Your task to perform on an android device: Install the ESPN app Image 0: 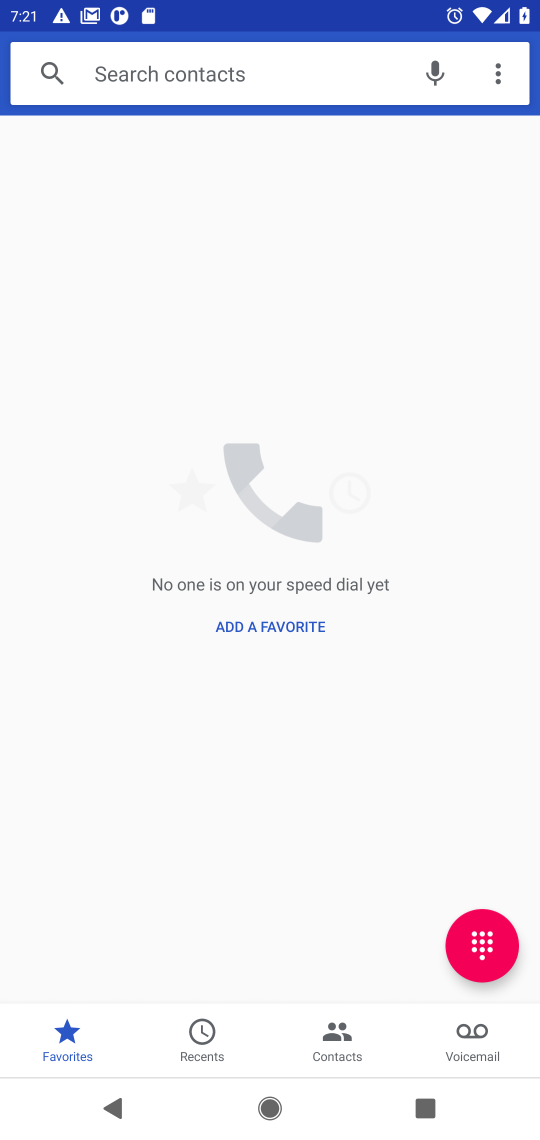
Step 0: press home button
Your task to perform on an android device: Install the ESPN app Image 1: 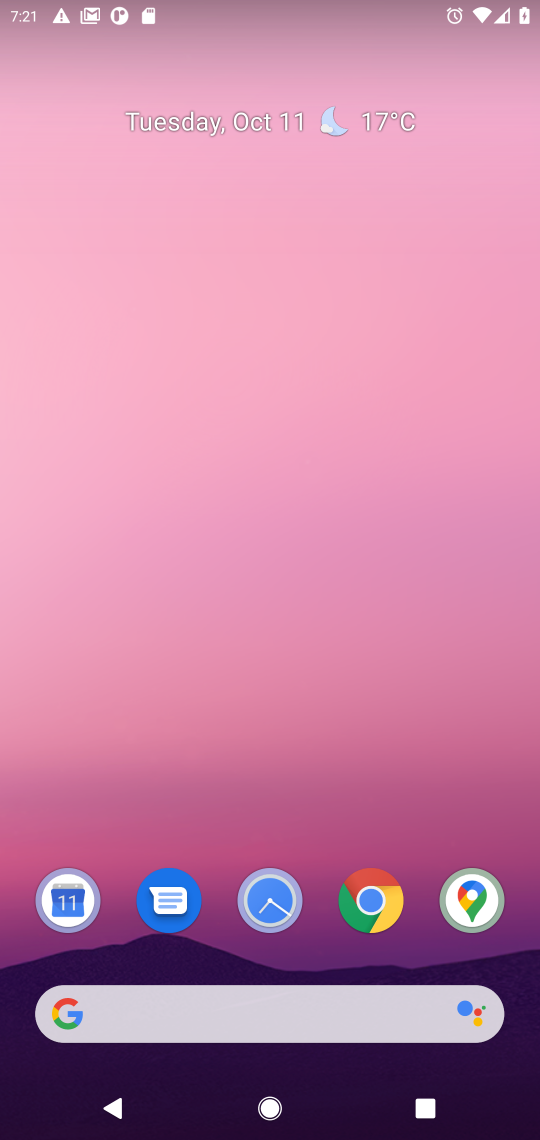
Step 1: drag from (263, 987) to (377, 186)
Your task to perform on an android device: Install the ESPN app Image 2: 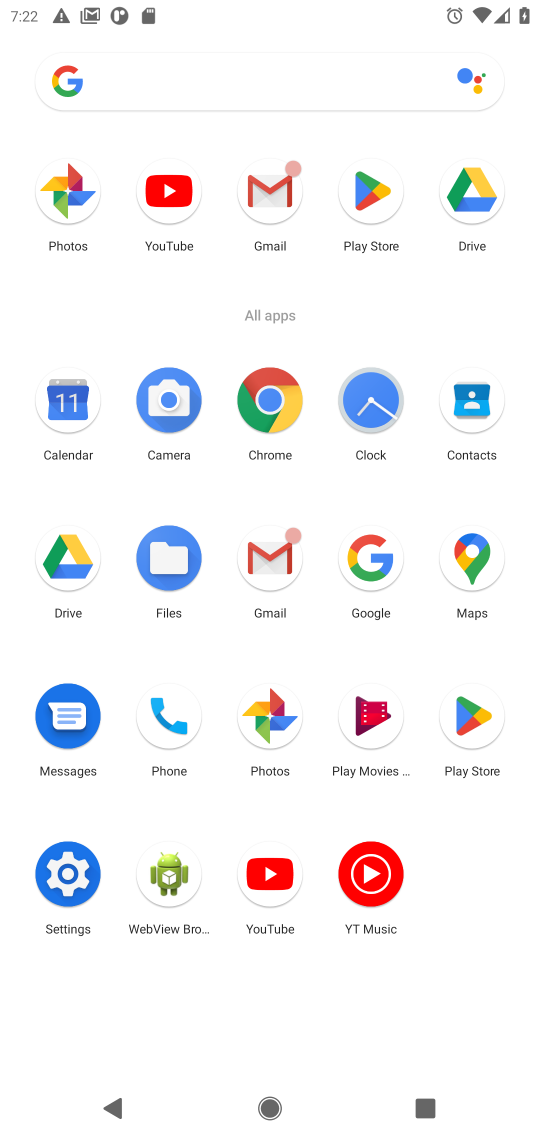
Step 2: click (464, 713)
Your task to perform on an android device: Install the ESPN app Image 3: 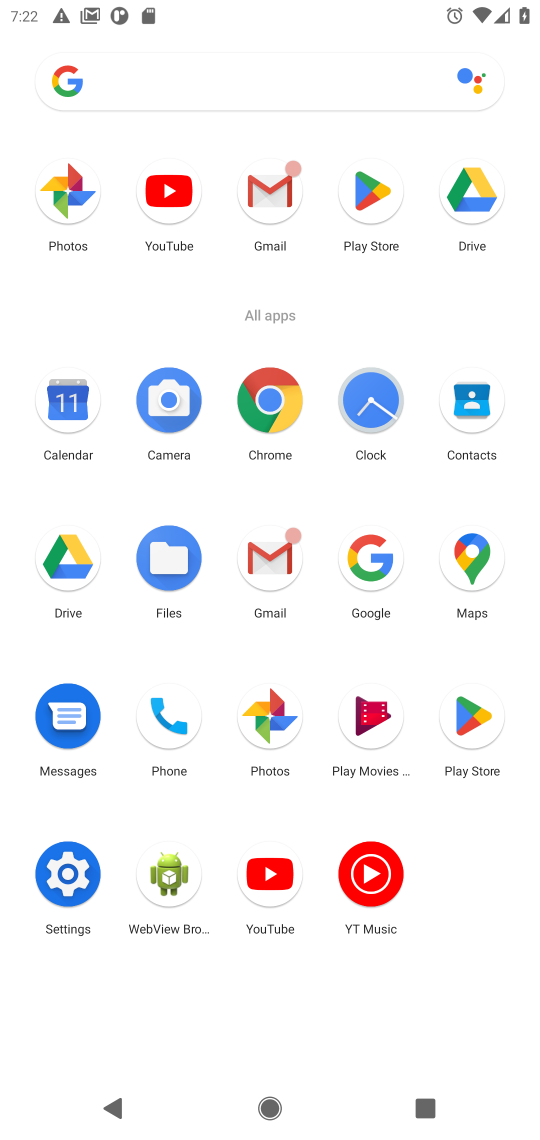
Step 3: click (462, 720)
Your task to perform on an android device: Install the ESPN app Image 4: 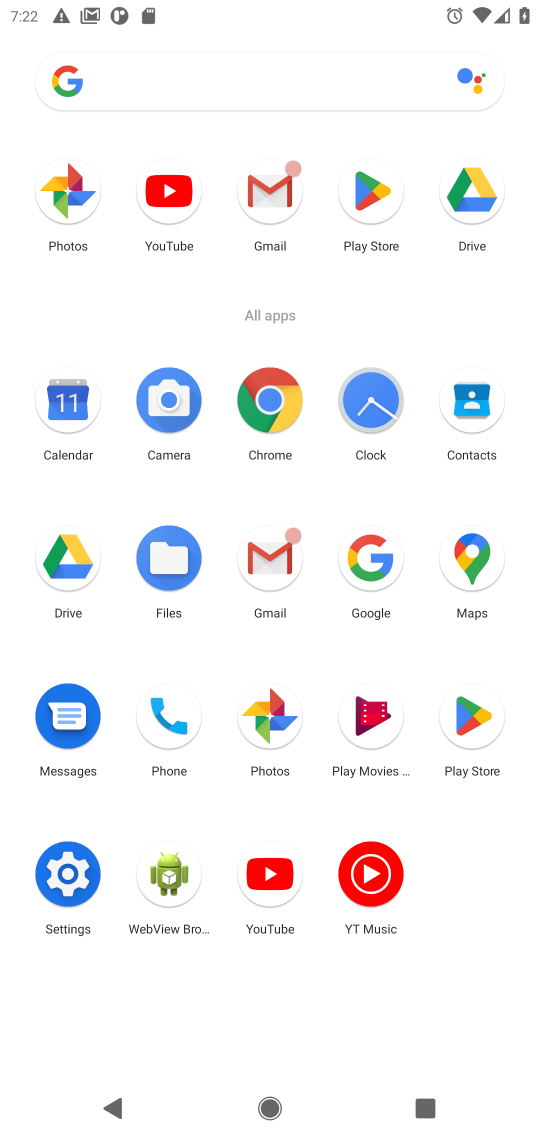
Step 4: click (462, 720)
Your task to perform on an android device: Install the ESPN app Image 5: 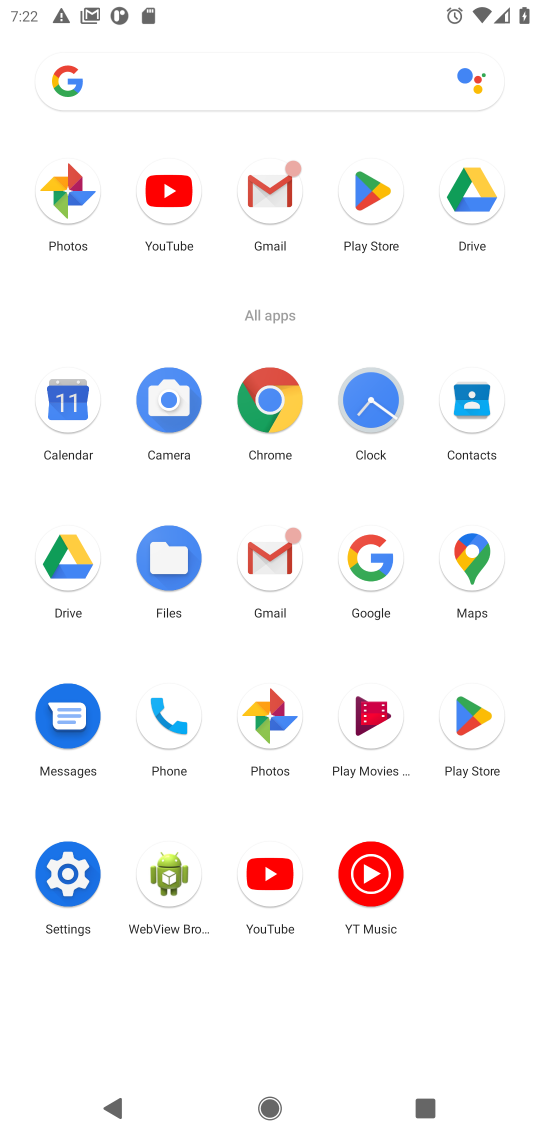
Step 5: click (460, 724)
Your task to perform on an android device: Install the ESPN app Image 6: 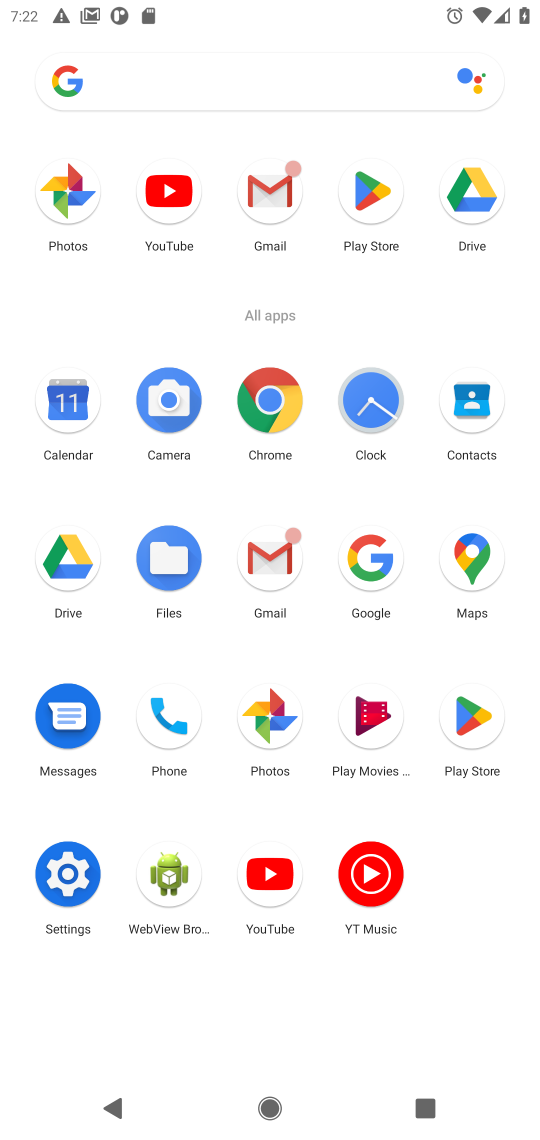
Step 6: click (468, 711)
Your task to perform on an android device: Install the ESPN app Image 7: 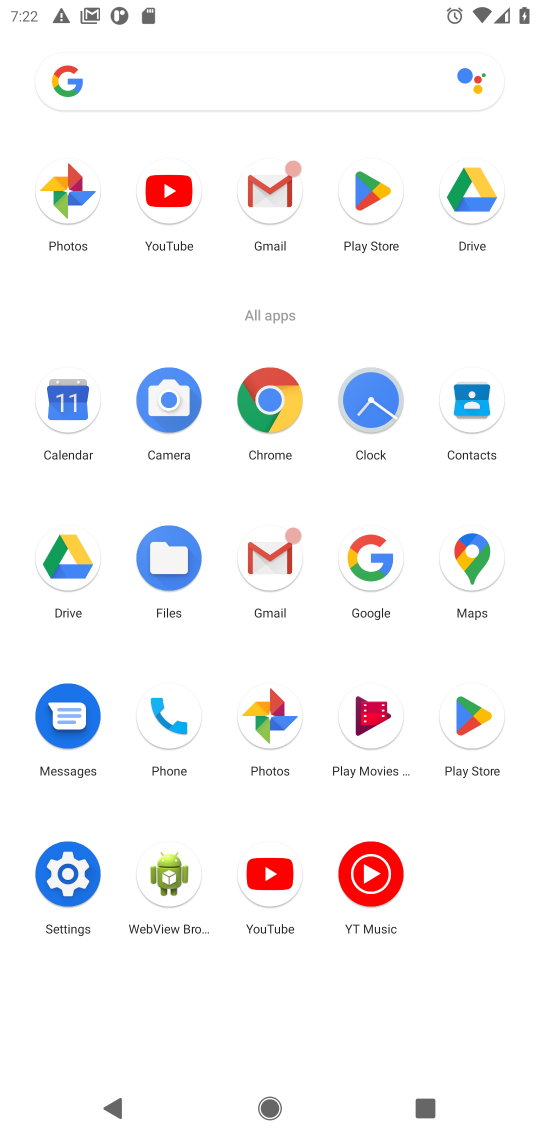
Step 7: click (468, 711)
Your task to perform on an android device: Install the ESPN app Image 8: 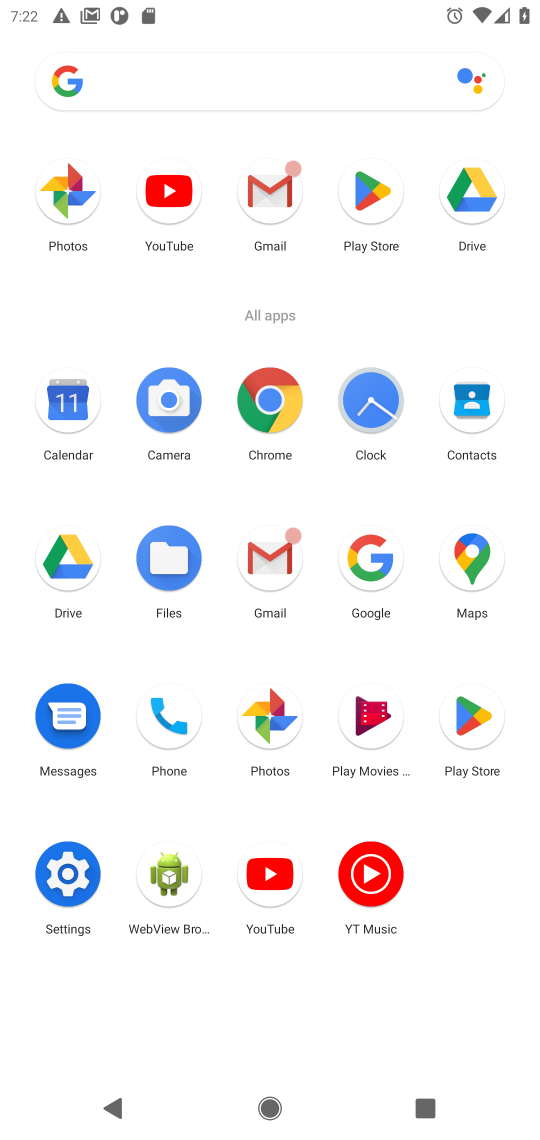
Step 8: task complete